Your task to perform on an android device: Open internet settings Image 0: 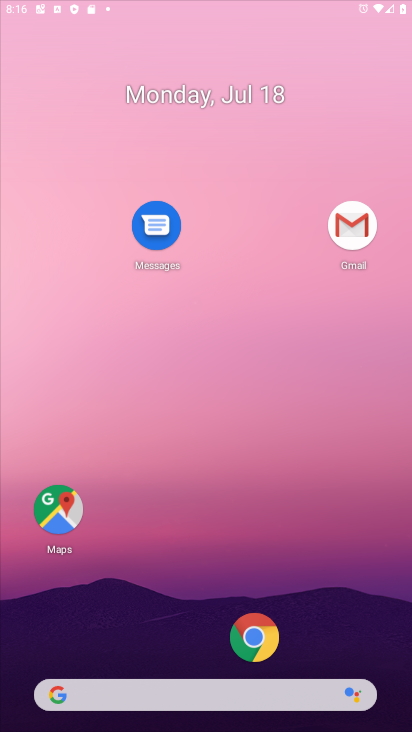
Step 0: press home button
Your task to perform on an android device: Open internet settings Image 1: 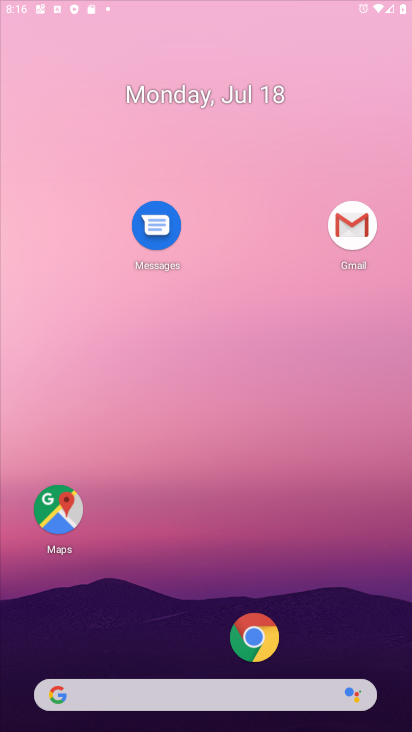
Step 1: click (250, 2)
Your task to perform on an android device: Open internet settings Image 2: 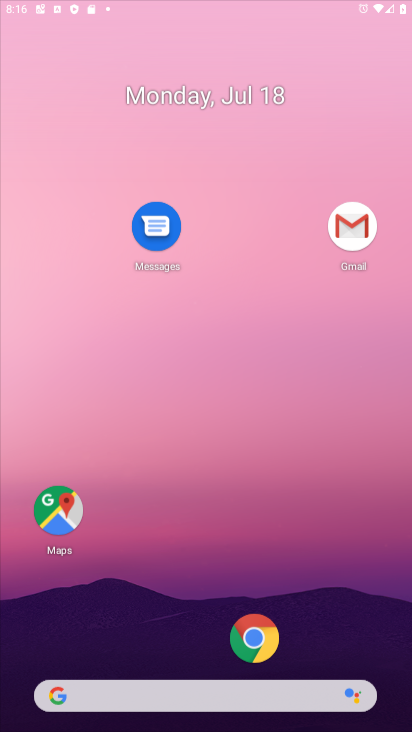
Step 2: drag from (191, 659) to (213, 91)
Your task to perform on an android device: Open internet settings Image 3: 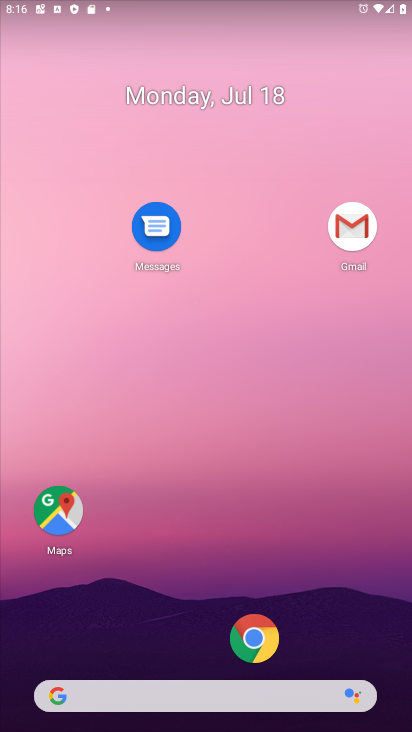
Step 3: drag from (207, 628) to (252, 186)
Your task to perform on an android device: Open internet settings Image 4: 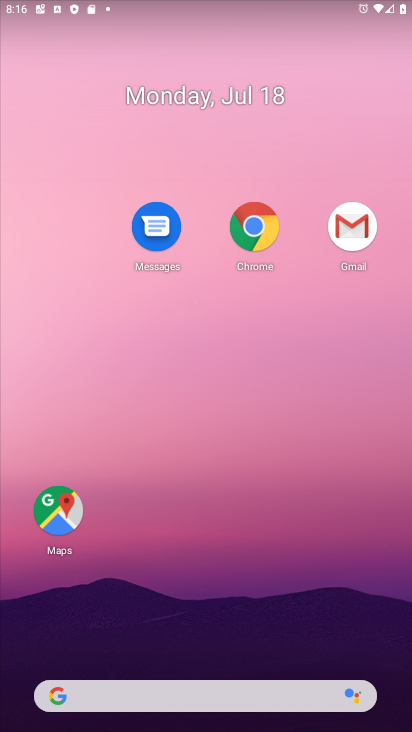
Step 4: drag from (235, 573) to (234, 115)
Your task to perform on an android device: Open internet settings Image 5: 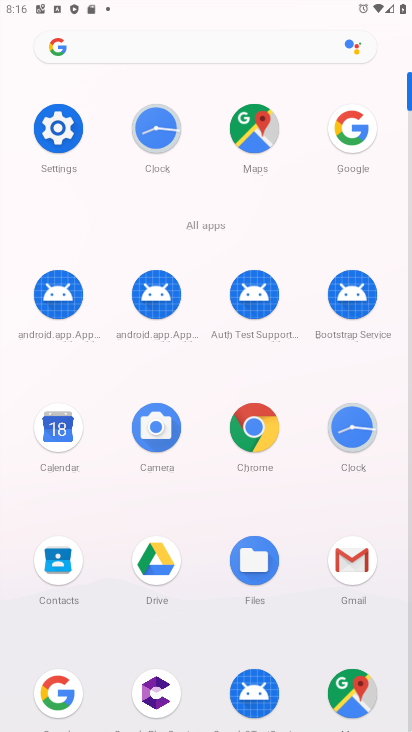
Step 5: click (53, 127)
Your task to perform on an android device: Open internet settings Image 6: 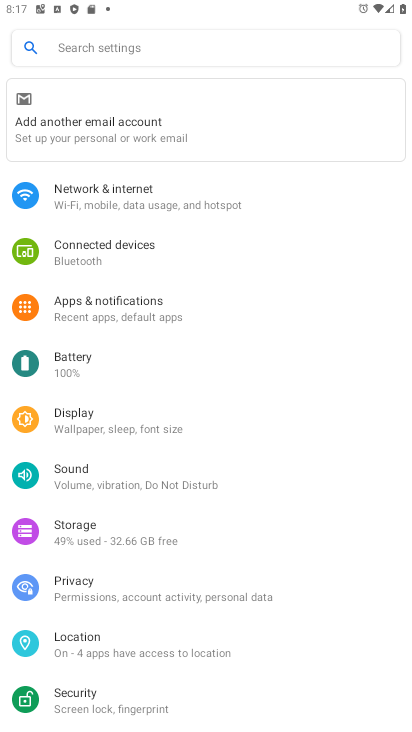
Step 6: click (112, 197)
Your task to perform on an android device: Open internet settings Image 7: 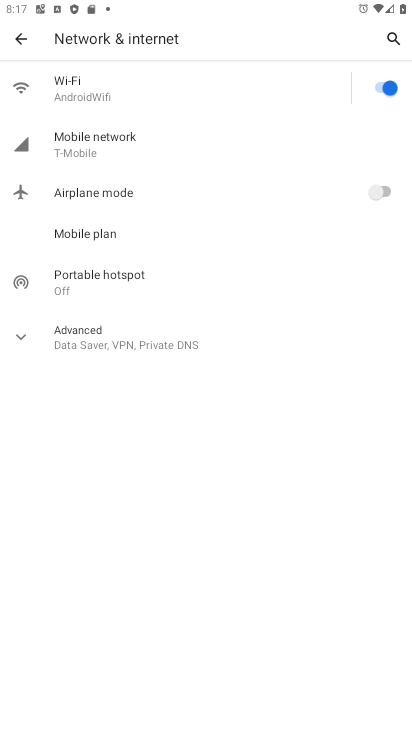
Step 7: click (27, 338)
Your task to perform on an android device: Open internet settings Image 8: 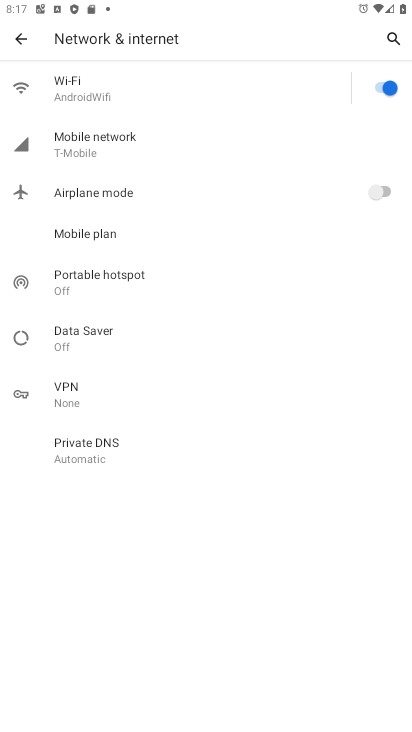
Step 8: task complete